Your task to perform on an android device: Search for the best fantasy books on Goodreads. Image 0: 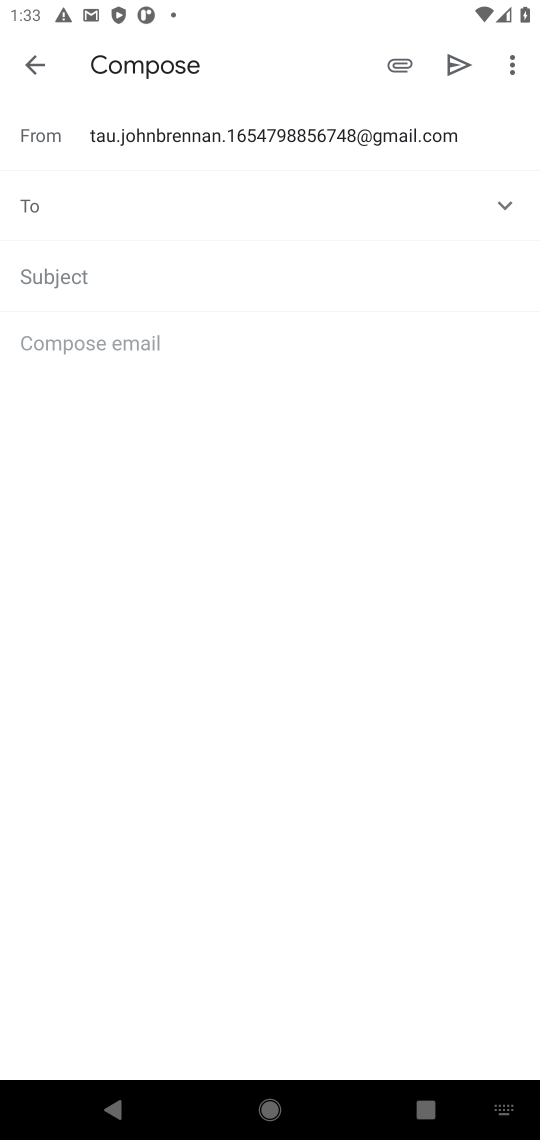
Step 0: press home button
Your task to perform on an android device: Search for the best fantasy books on Goodreads. Image 1: 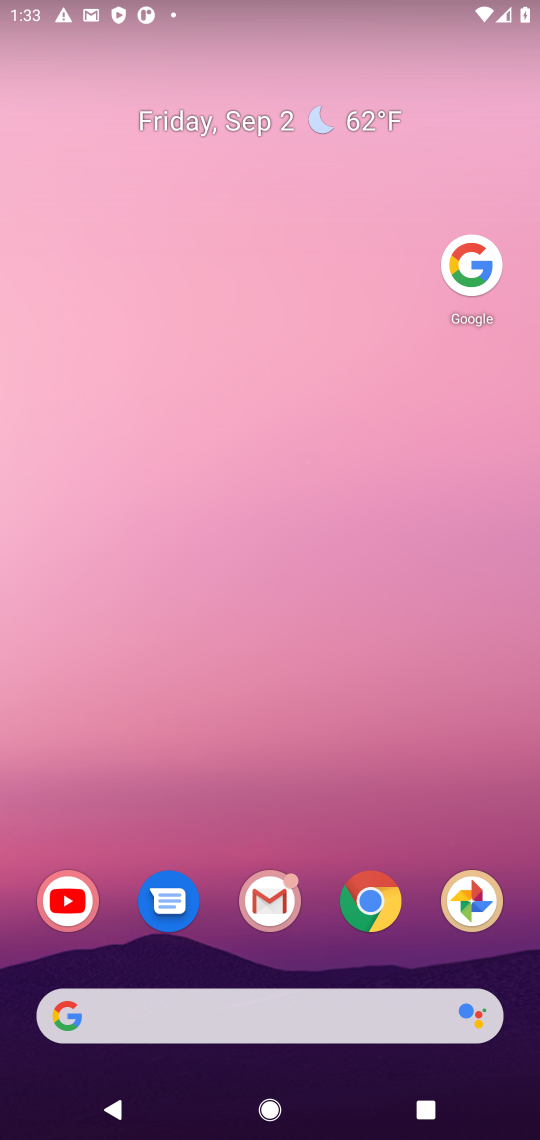
Step 1: click (480, 258)
Your task to perform on an android device: Search for the best fantasy books on Goodreads. Image 2: 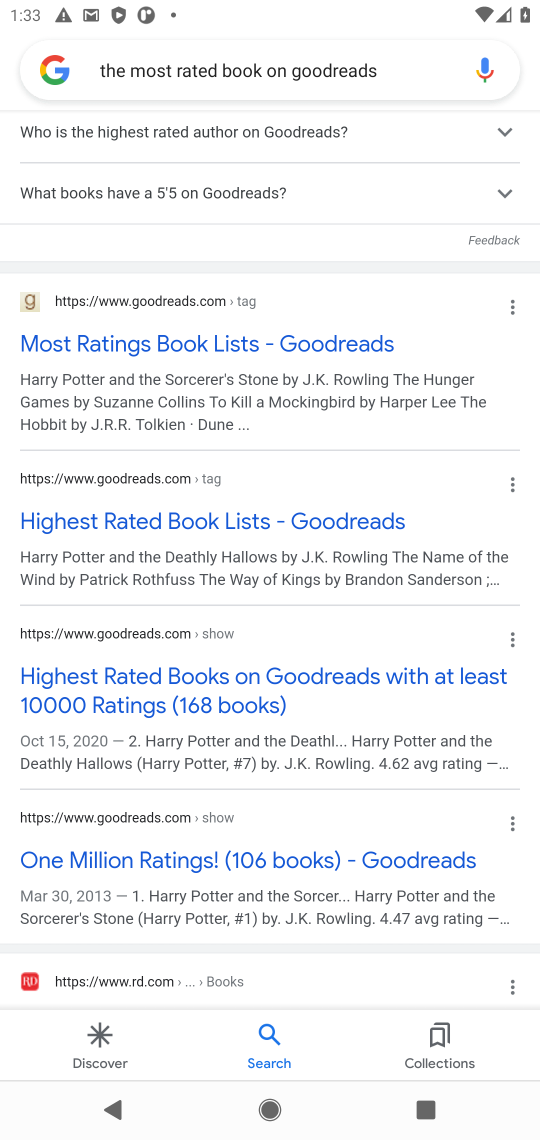
Step 2: click (403, 66)
Your task to perform on an android device: Search for the best fantasy books on Goodreads. Image 3: 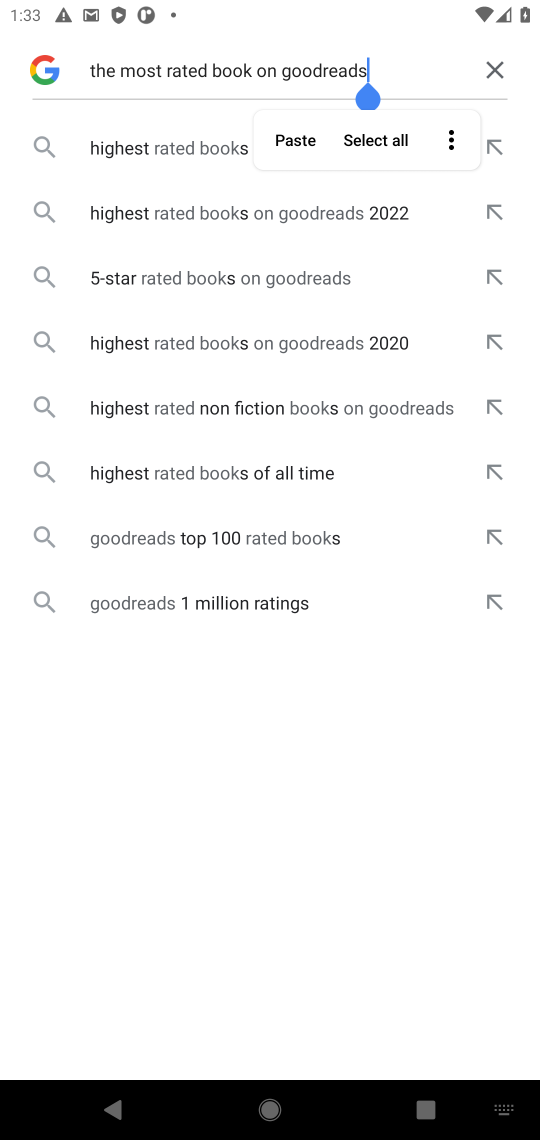
Step 3: click (500, 74)
Your task to perform on an android device: Search for the best fantasy books on Goodreads. Image 4: 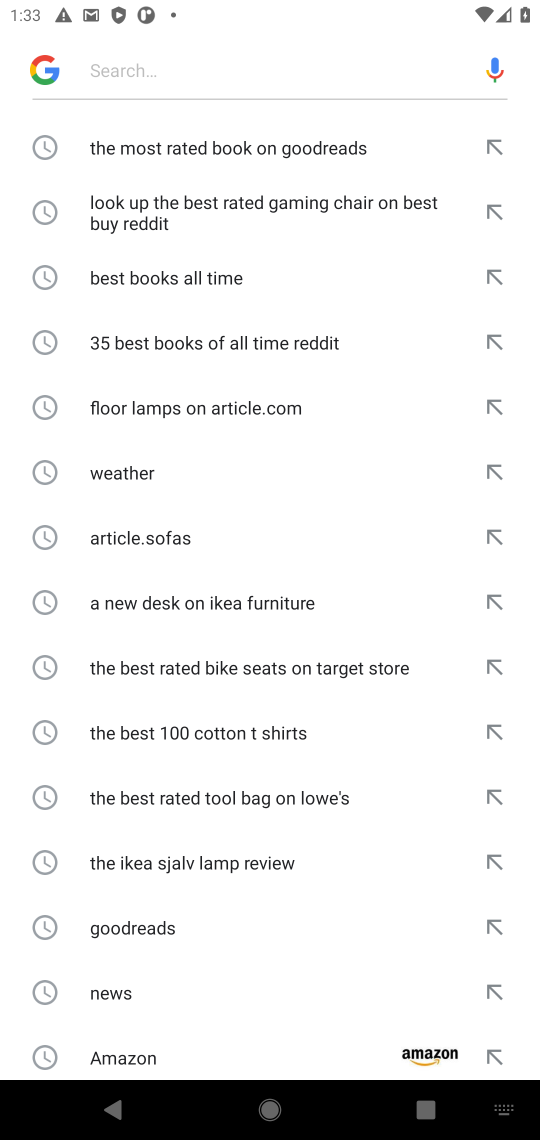
Step 4: click (246, 53)
Your task to perform on an android device: Search for the best fantasy books on Goodreads. Image 5: 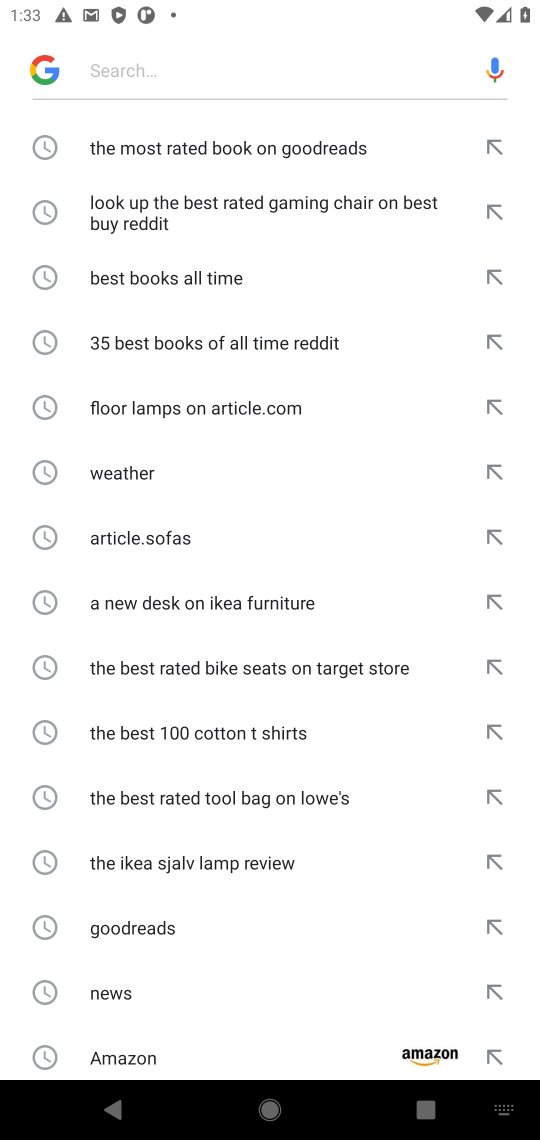
Step 5: type "the best fantasy books on Goodreads "
Your task to perform on an android device: Search for the best fantasy books on Goodreads. Image 6: 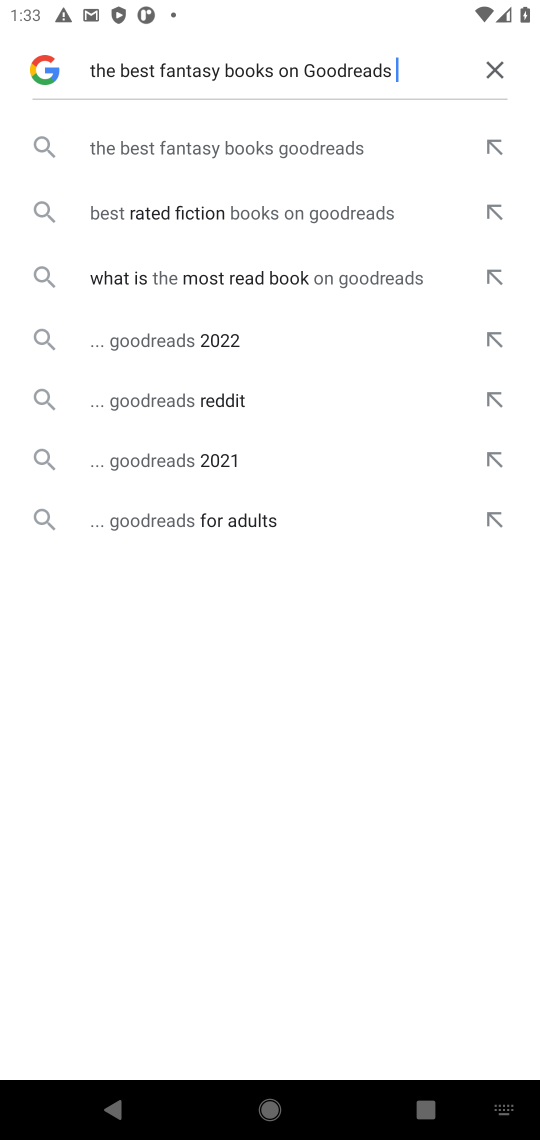
Step 6: click (213, 142)
Your task to perform on an android device: Search for the best fantasy books on Goodreads. Image 7: 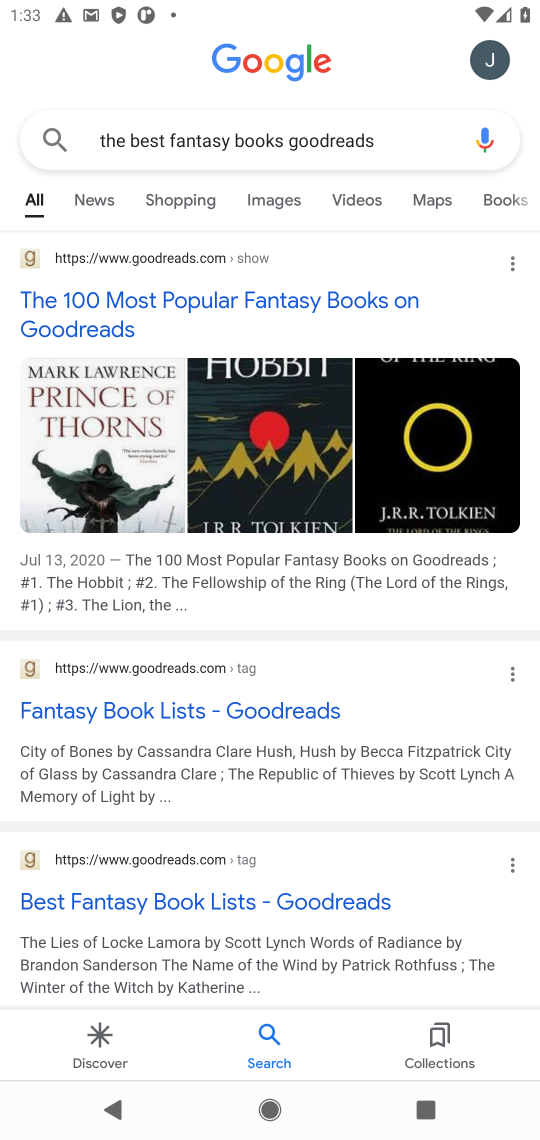
Step 7: click (30, 322)
Your task to perform on an android device: Search for the best fantasy books on Goodreads. Image 8: 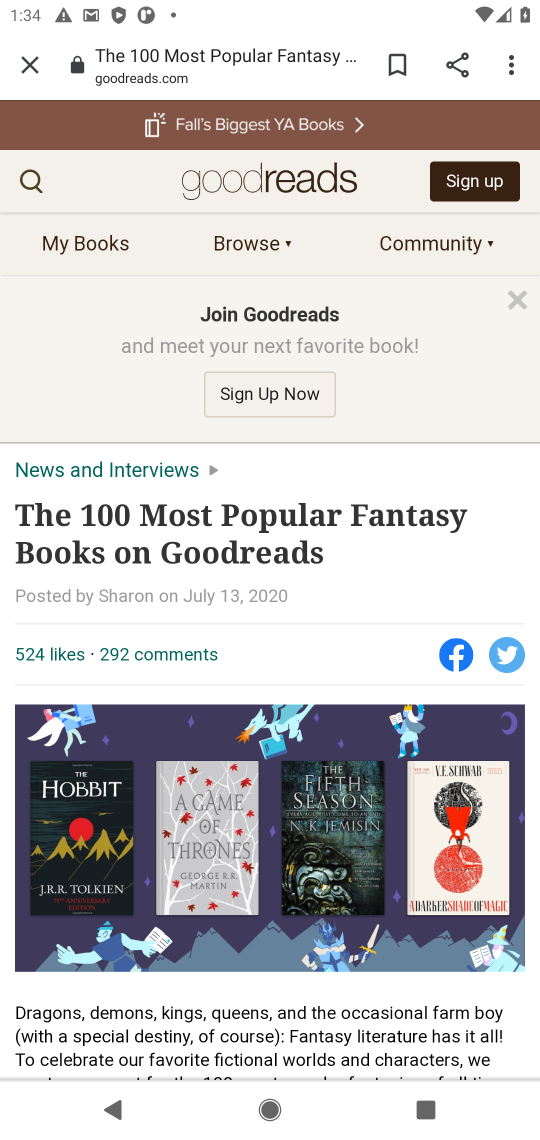
Step 8: task complete